Your task to perform on an android device: Go to battery settings Image 0: 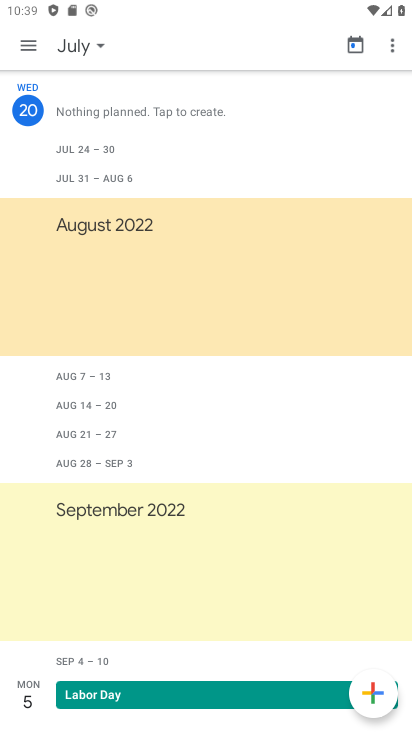
Step 0: press home button
Your task to perform on an android device: Go to battery settings Image 1: 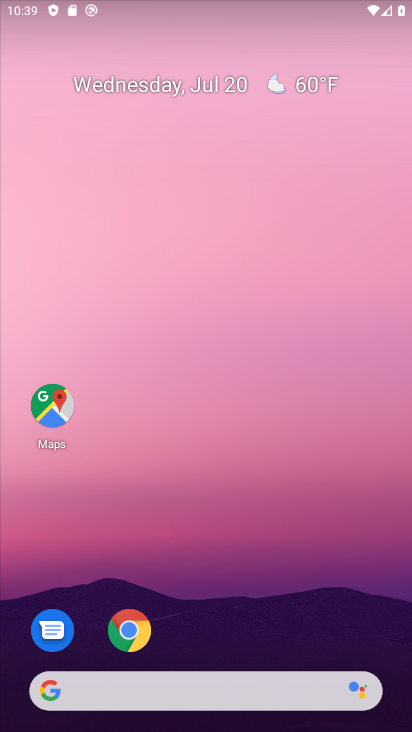
Step 1: drag from (209, 674) to (213, 62)
Your task to perform on an android device: Go to battery settings Image 2: 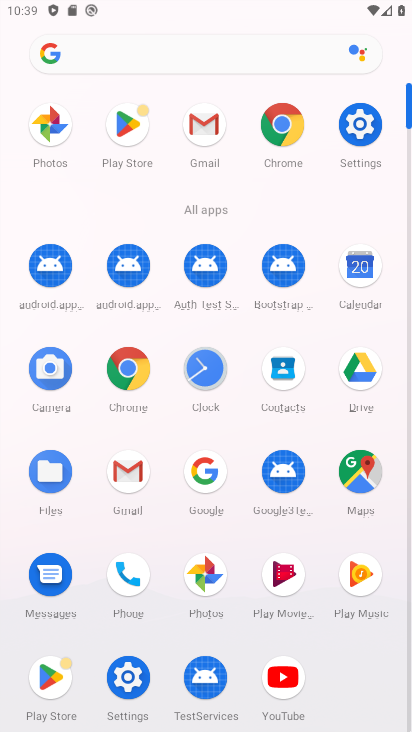
Step 2: click (363, 125)
Your task to perform on an android device: Go to battery settings Image 3: 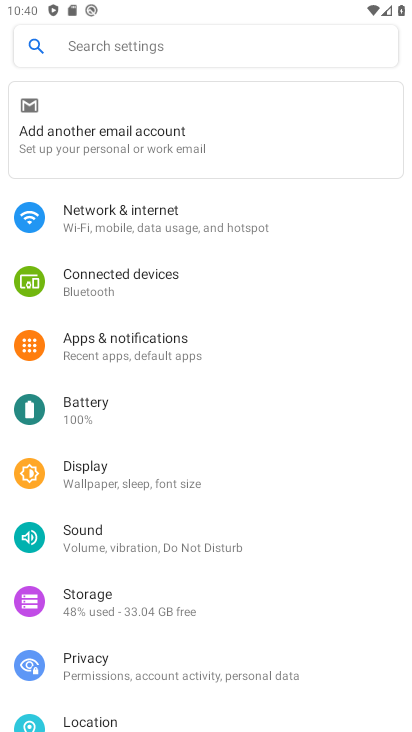
Step 3: click (111, 418)
Your task to perform on an android device: Go to battery settings Image 4: 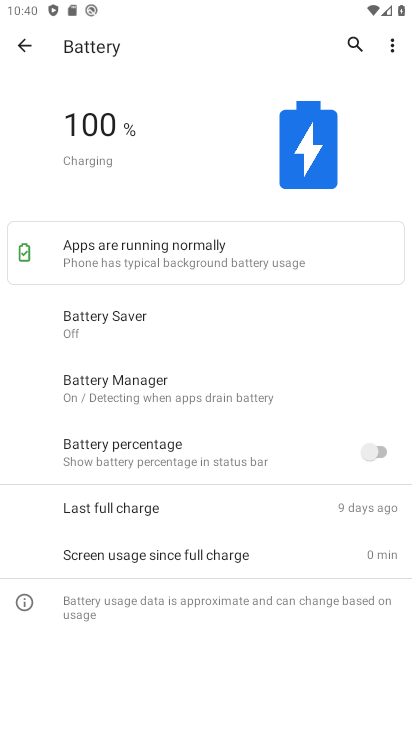
Step 4: task complete